Your task to perform on an android device: Open Amazon Image 0: 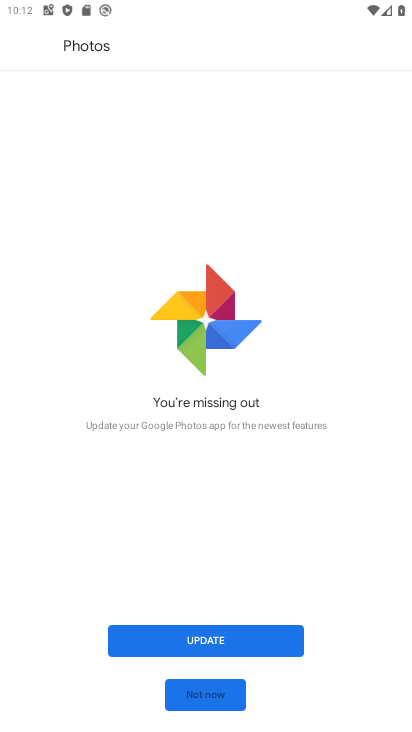
Step 0: press home button
Your task to perform on an android device: Open Amazon Image 1: 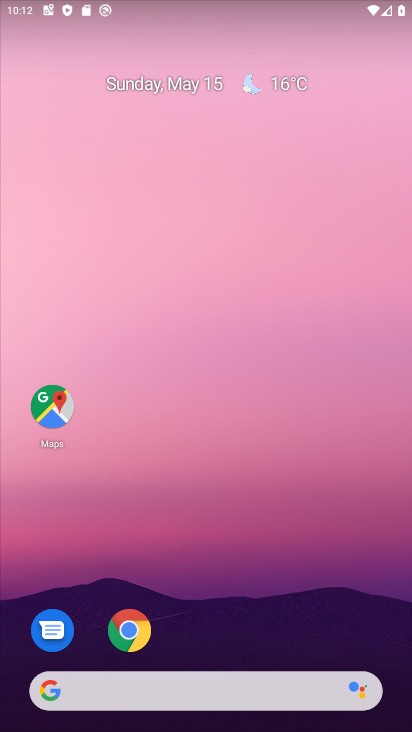
Step 1: drag from (222, 641) to (211, 600)
Your task to perform on an android device: Open Amazon Image 2: 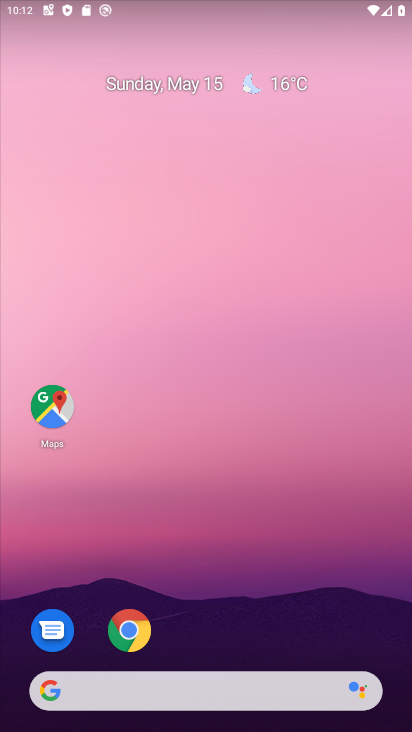
Step 2: click (123, 633)
Your task to perform on an android device: Open Amazon Image 3: 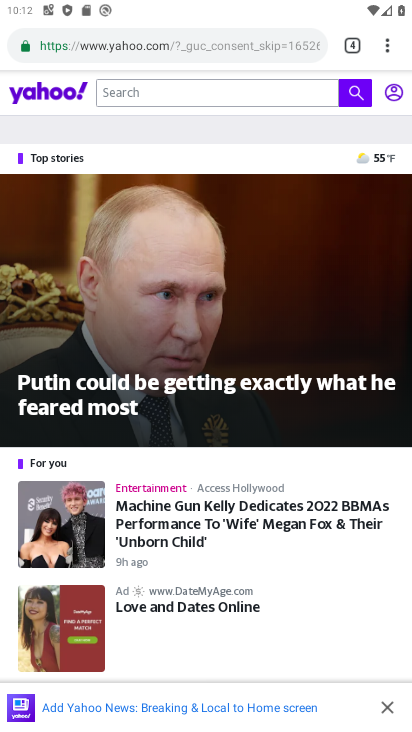
Step 3: click (354, 49)
Your task to perform on an android device: Open Amazon Image 4: 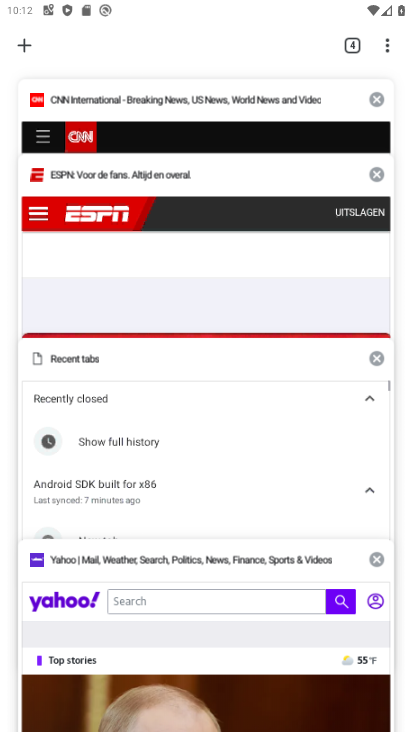
Step 4: click (16, 39)
Your task to perform on an android device: Open Amazon Image 5: 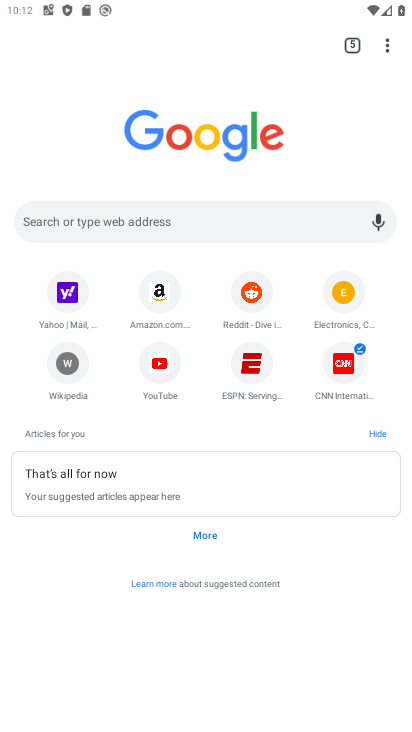
Step 5: click (161, 287)
Your task to perform on an android device: Open Amazon Image 6: 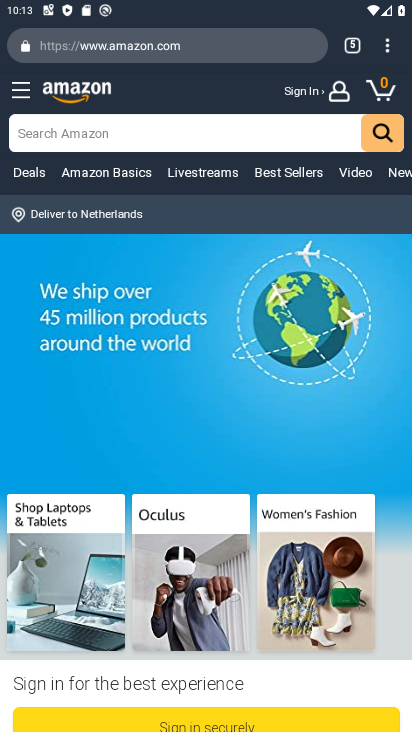
Step 6: task complete